Your task to perform on an android device: uninstall "Mercado Libre" Image 0: 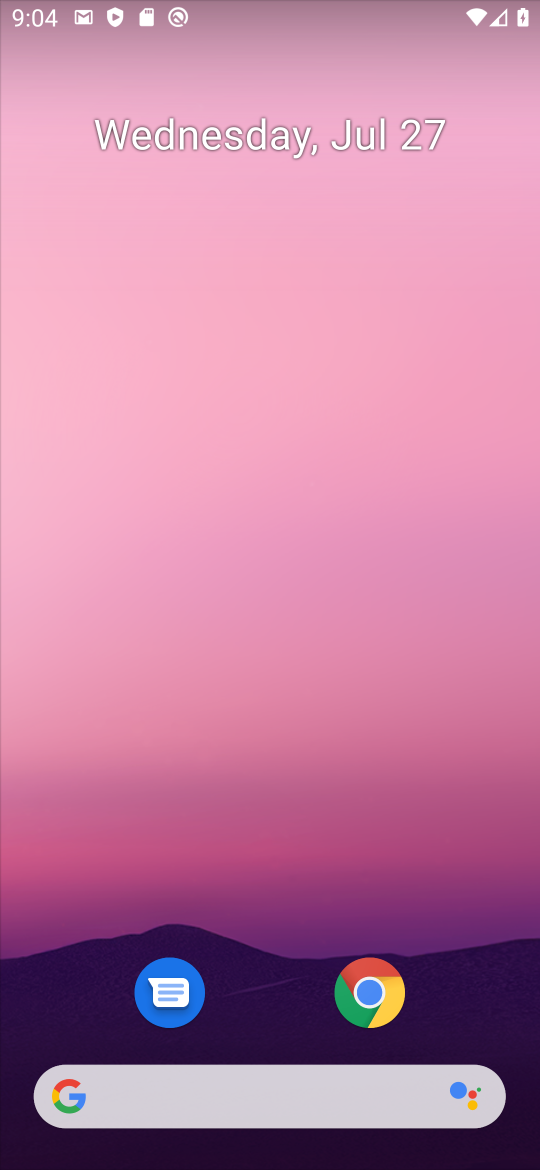
Step 0: drag from (254, 964) to (311, 195)
Your task to perform on an android device: uninstall "Mercado Libre" Image 1: 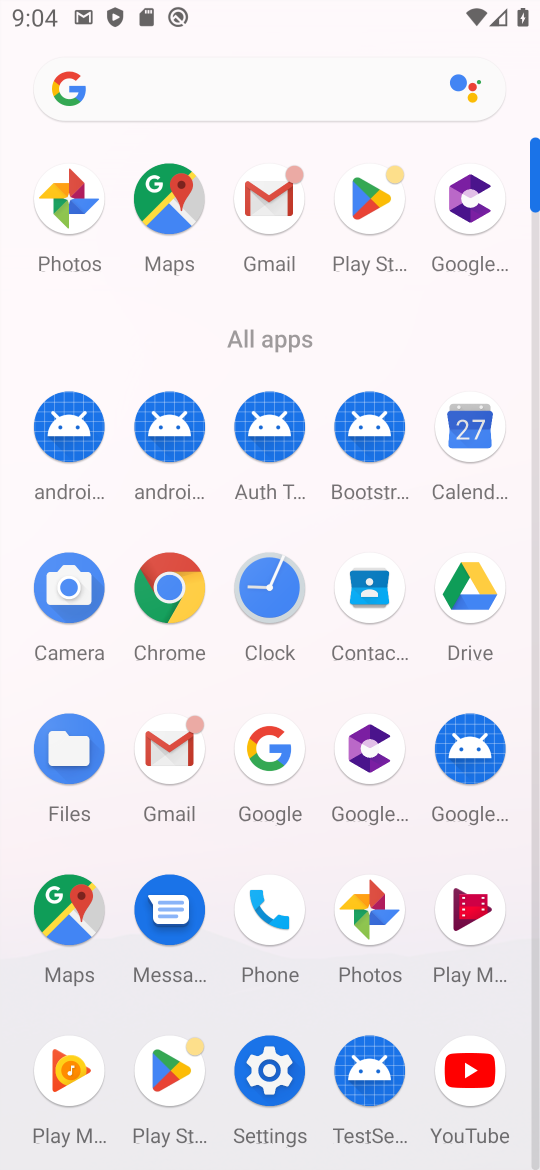
Step 1: click (159, 1063)
Your task to perform on an android device: uninstall "Mercado Libre" Image 2: 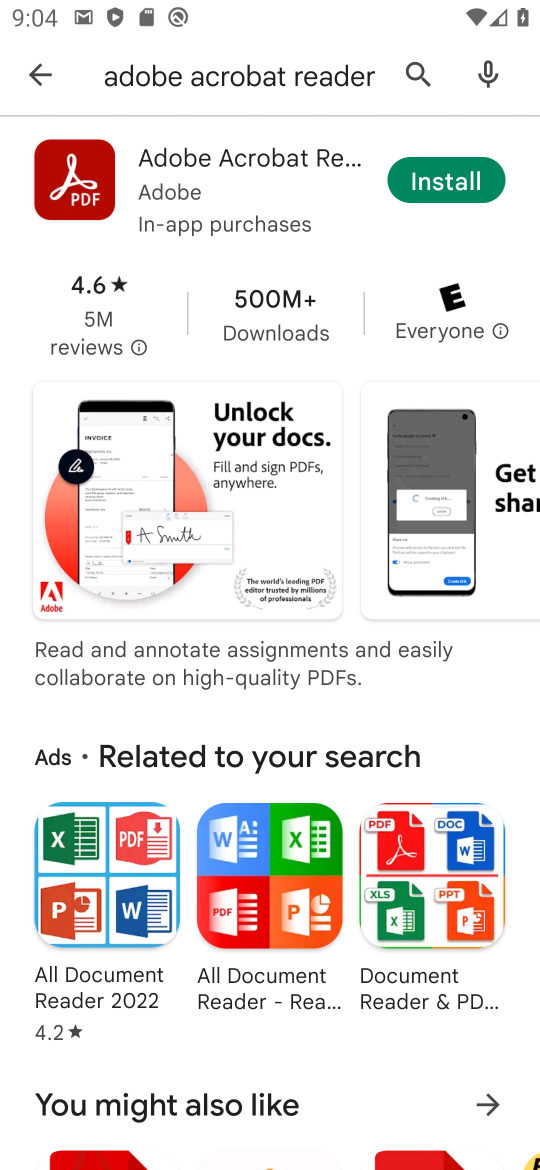
Step 2: click (416, 68)
Your task to perform on an android device: uninstall "Mercado Libre" Image 3: 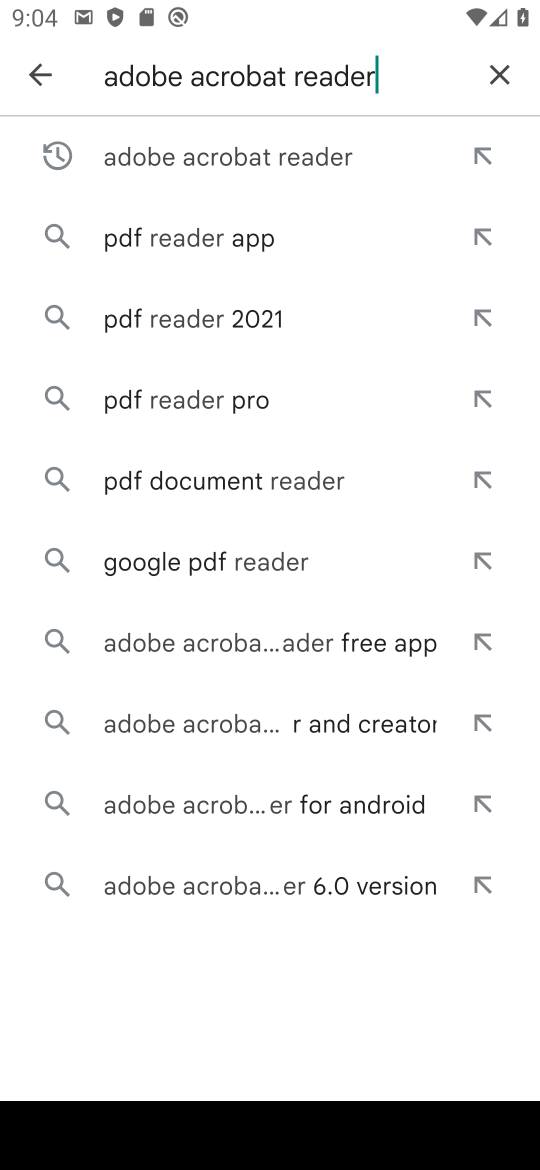
Step 3: click (500, 70)
Your task to perform on an android device: uninstall "Mercado Libre" Image 4: 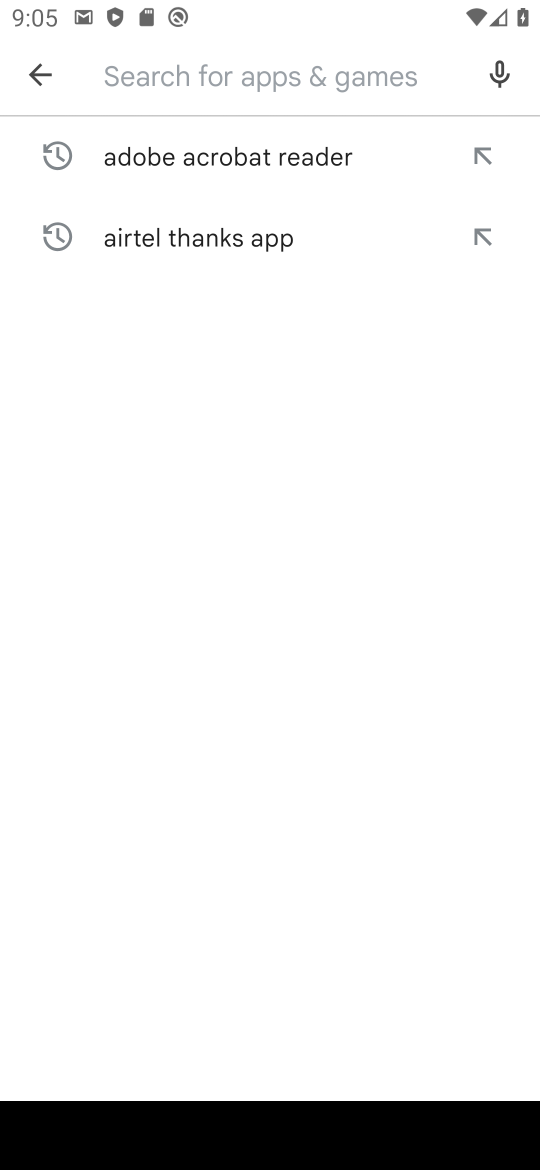
Step 4: type "Mercado Libre"
Your task to perform on an android device: uninstall "Mercado Libre" Image 5: 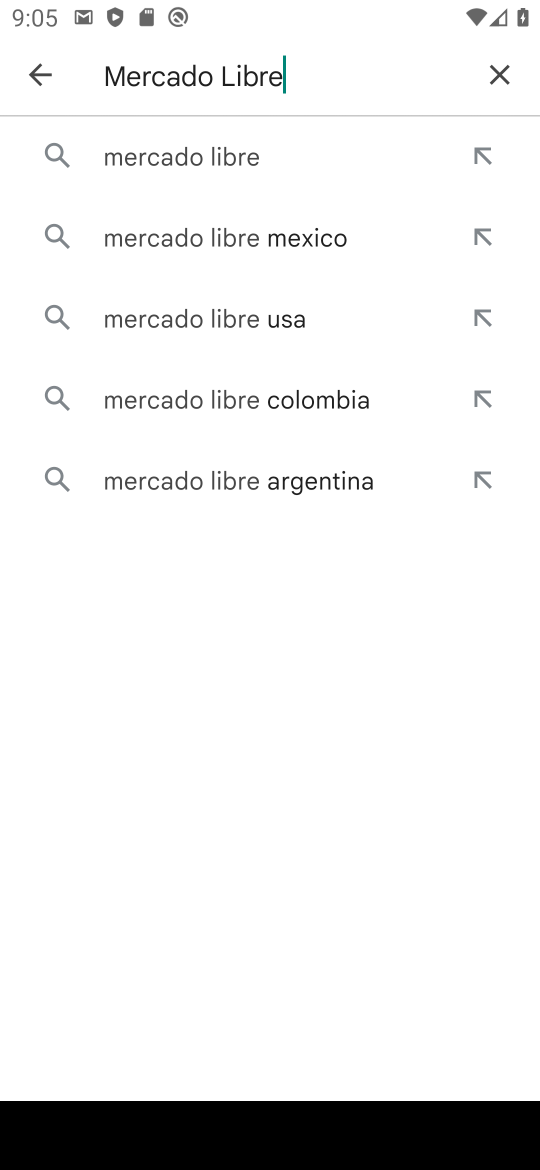
Step 5: click (203, 154)
Your task to perform on an android device: uninstall "Mercado Libre" Image 6: 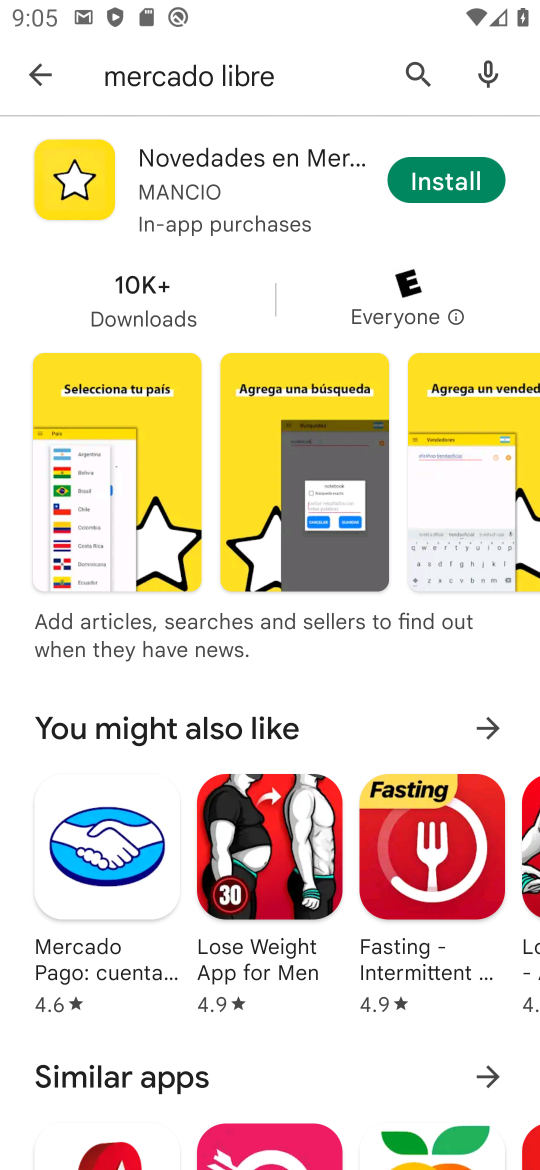
Step 6: click (31, 70)
Your task to perform on an android device: uninstall "Mercado Libre" Image 7: 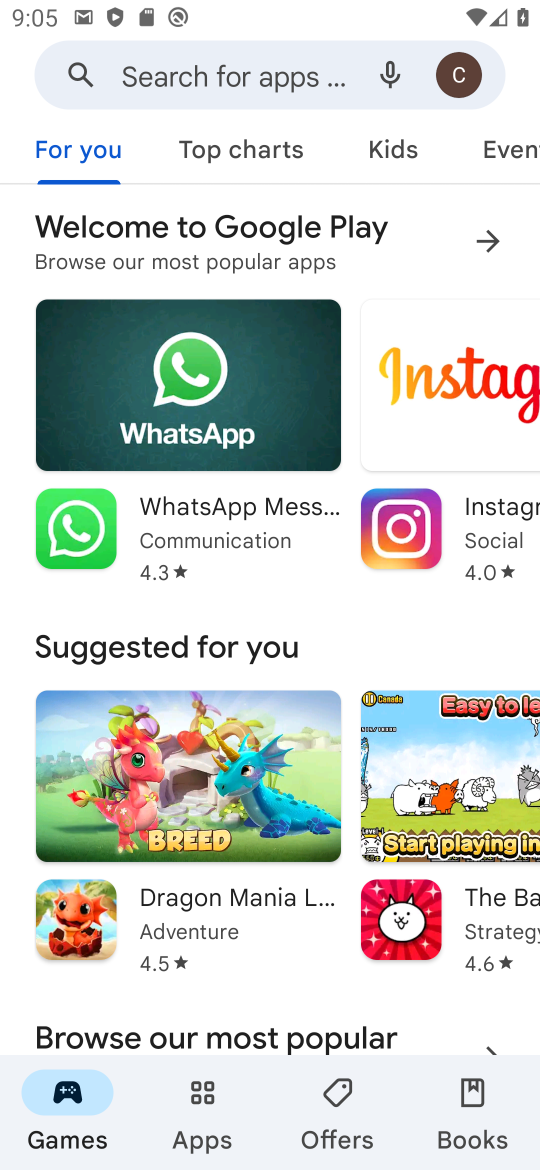
Step 7: task complete